Your task to perform on an android device: open app "Walmart Shopping & Grocery" Image 0: 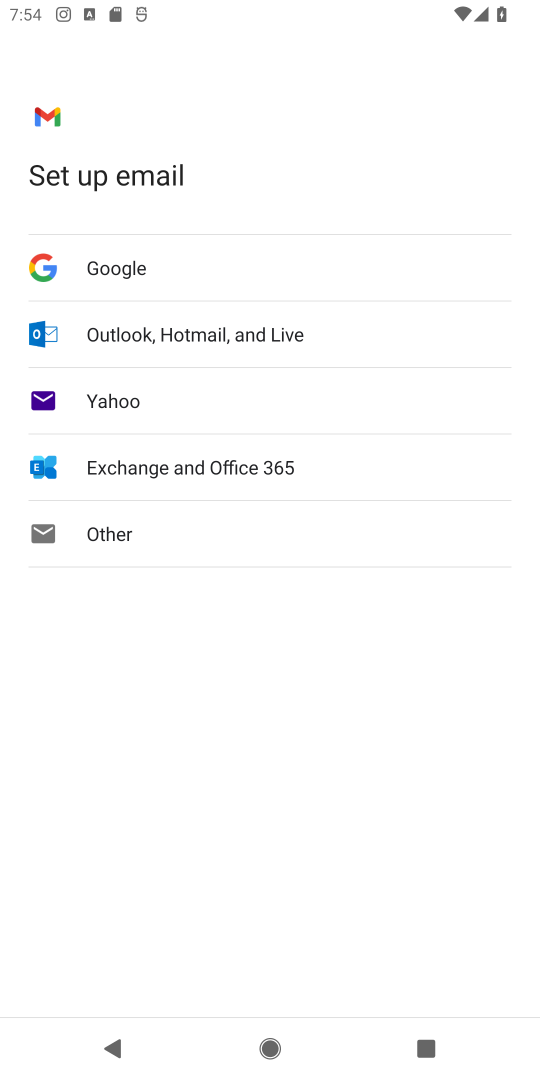
Step 0: press home button
Your task to perform on an android device: open app "Walmart Shopping & Grocery" Image 1: 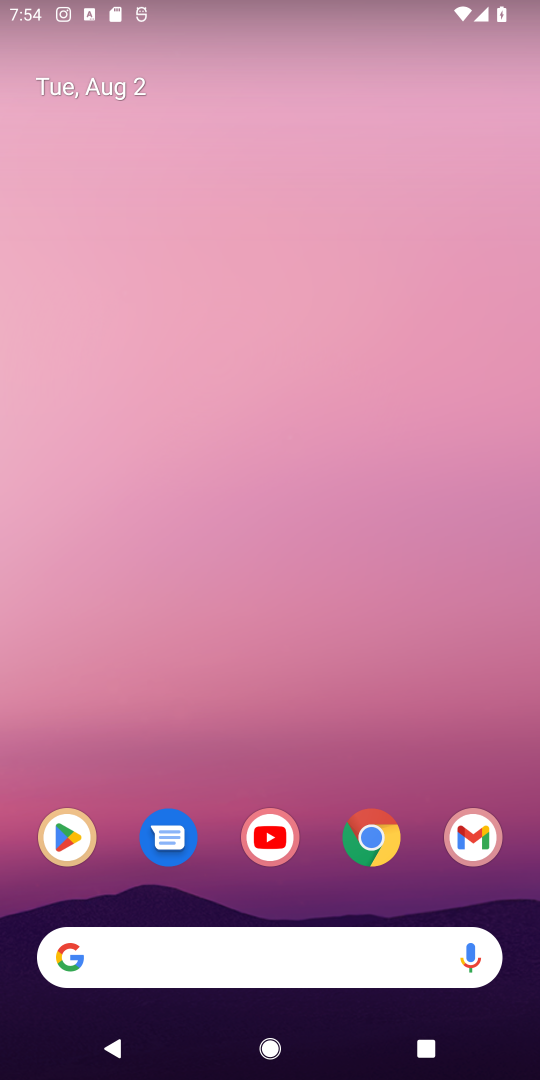
Step 1: click (54, 843)
Your task to perform on an android device: open app "Walmart Shopping & Grocery" Image 2: 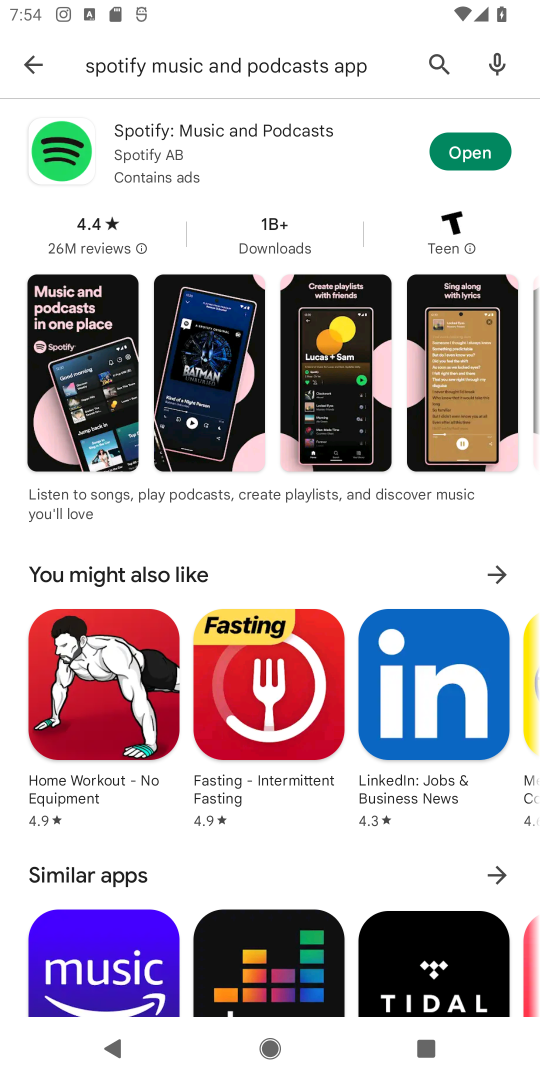
Step 2: click (444, 65)
Your task to perform on an android device: open app "Walmart Shopping & Grocery" Image 3: 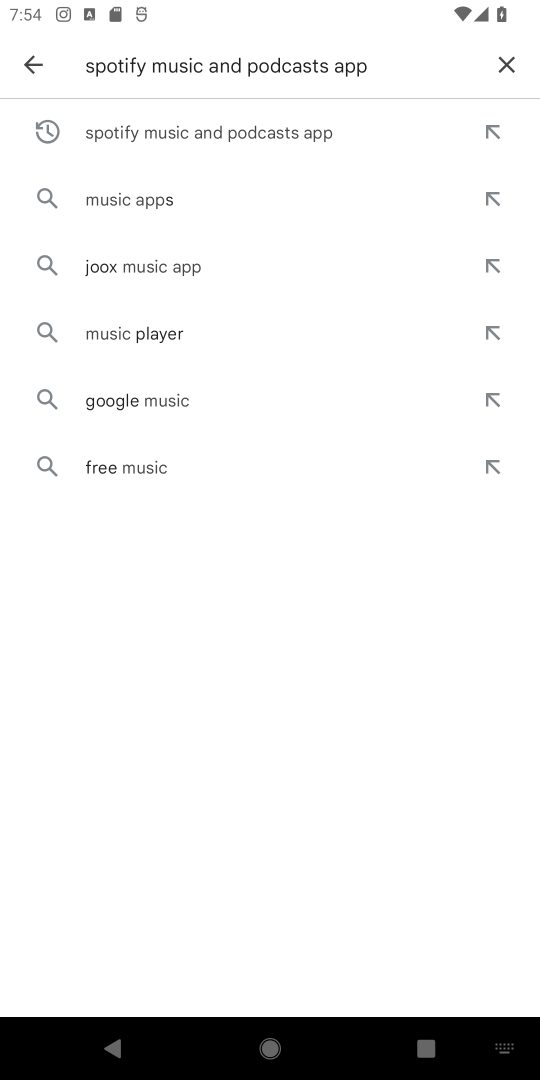
Step 3: click (514, 66)
Your task to perform on an android device: open app "Walmart Shopping & Grocery" Image 4: 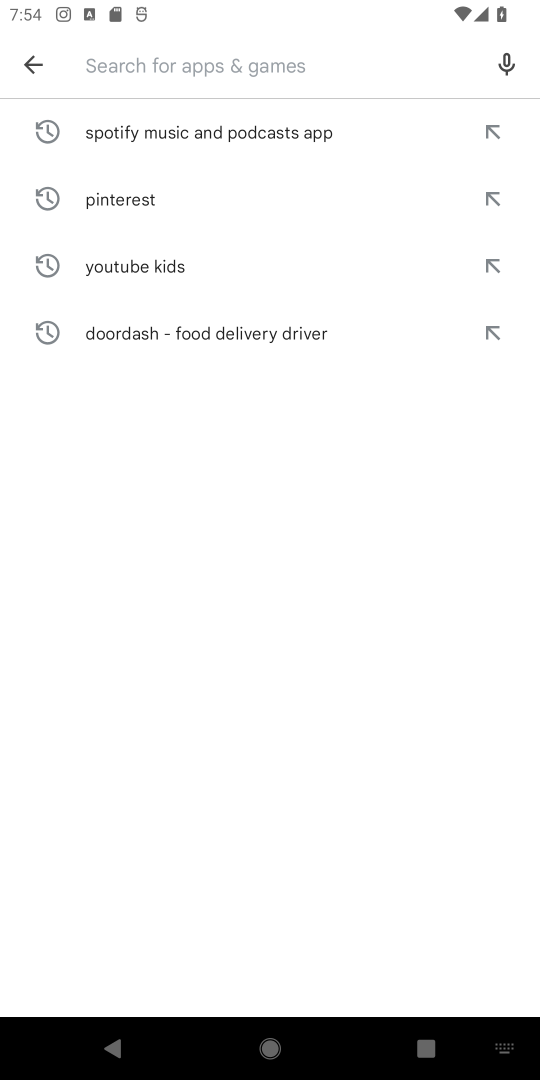
Step 4: type "Walmart Shopping & Grocery"
Your task to perform on an android device: open app "Walmart Shopping & Grocery" Image 5: 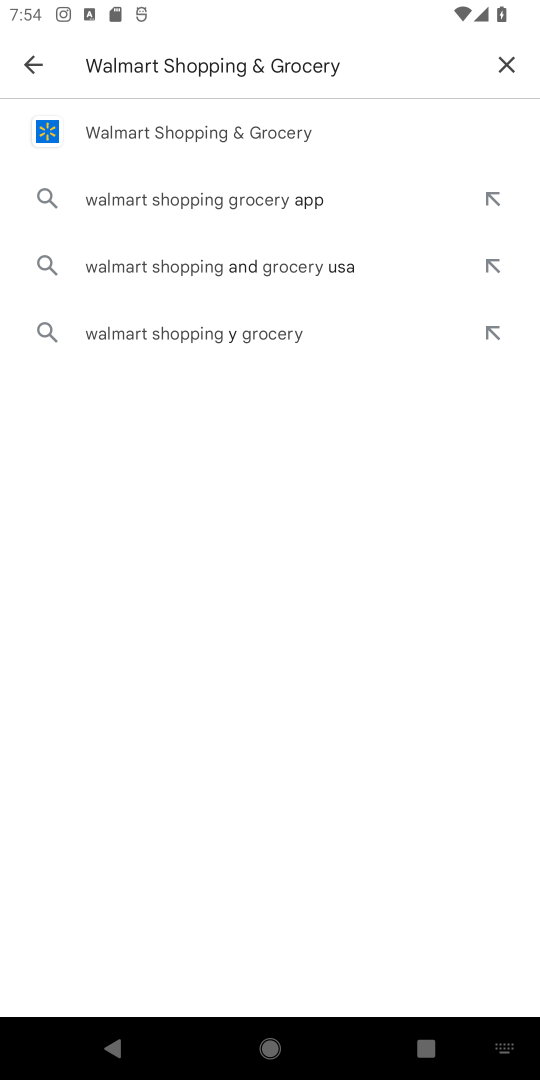
Step 5: click (170, 135)
Your task to perform on an android device: open app "Walmart Shopping & Grocery" Image 6: 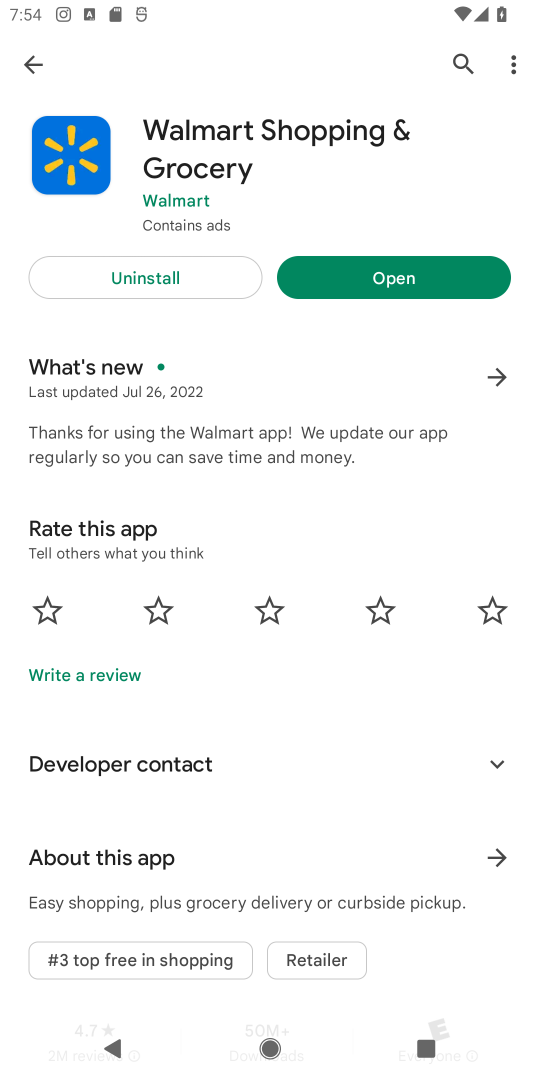
Step 6: click (376, 282)
Your task to perform on an android device: open app "Walmart Shopping & Grocery" Image 7: 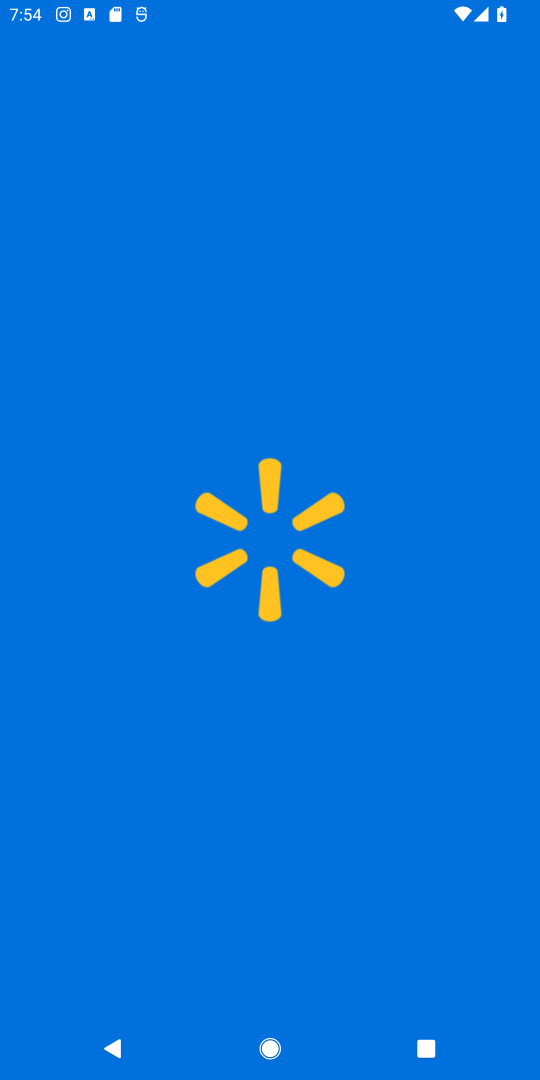
Step 7: task complete